Your task to perform on an android device: Search for flights from NYC to San Diego Image 0: 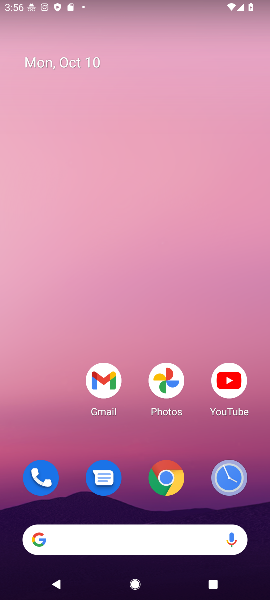
Step 0: click (165, 476)
Your task to perform on an android device: Search for flights from NYC to San Diego Image 1: 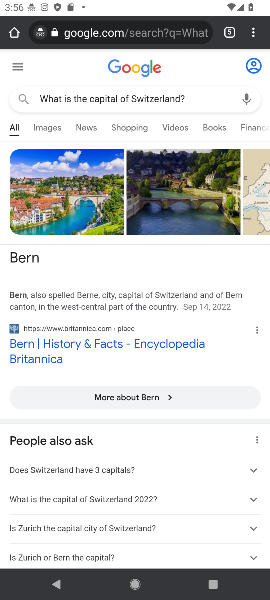
Step 1: click (125, 32)
Your task to perform on an android device: Search for flights from NYC to San Diego Image 2: 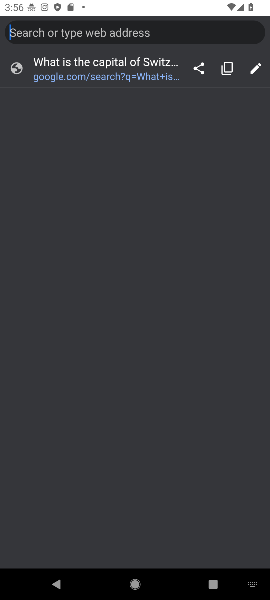
Step 2: type " flights from NYC to San Diego"
Your task to perform on an android device: Search for flights from NYC to San Diego Image 3: 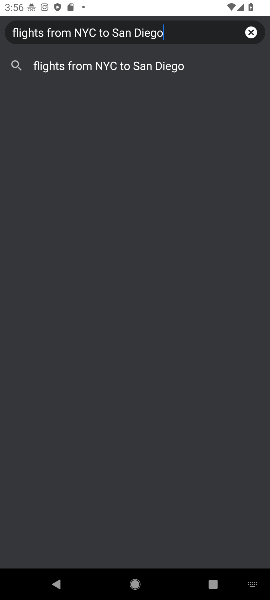
Step 3: click (179, 70)
Your task to perform on an android device: Search for flights from NYC to San Diego Image 4: 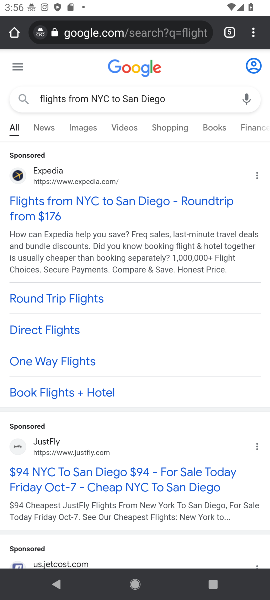
Step 4: drag from (32, 535) to (108, 75)
Your task to perform on an android device: Search for flights from NYC to San Diego Image 5: 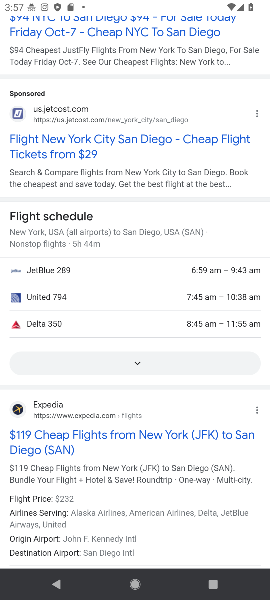
Step 5: drag from (53, 501) to (118, 187)
Your task to perform on an android device: Search for flights from NYC to San Diego Image 6: 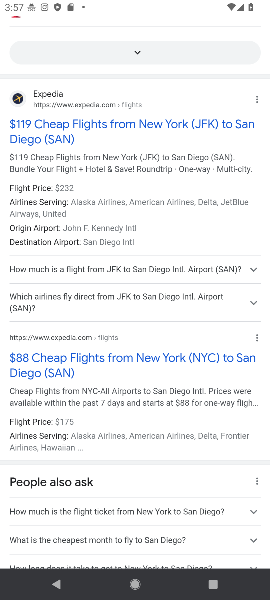
Step 6: click (32, 136)
Your task to perform on an android device: Search for flights from NYC to San Diego Image 7: 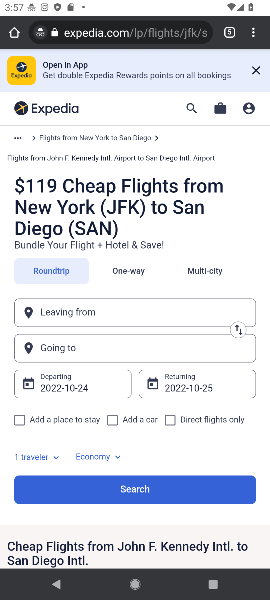
Step 7: task complete